Your task to perform on an android device: Go to display settings Image 0: 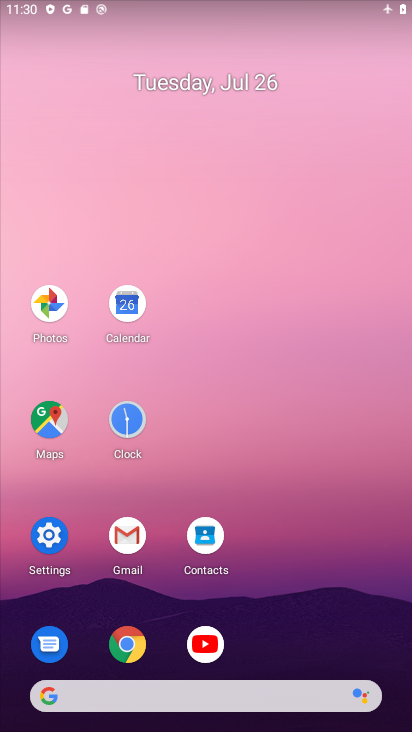
Step 0: click (48, 530)
Your task to perform on an android device: Go to display settings Image 1: 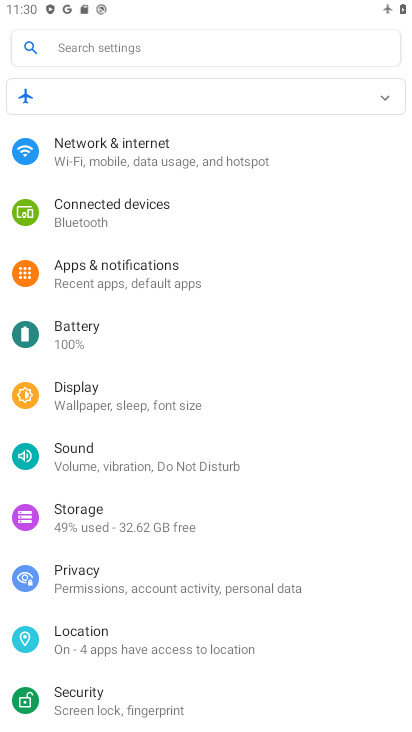
Step 1: click (71, 381)
Your task to perform on an android device: Go to display settings Image 2: 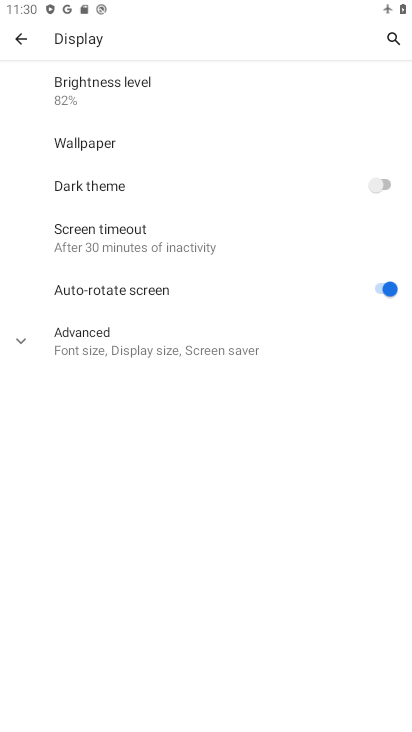
Step 2: task complete